Your task to perform on an android device: Open accessibility settings Image 0: 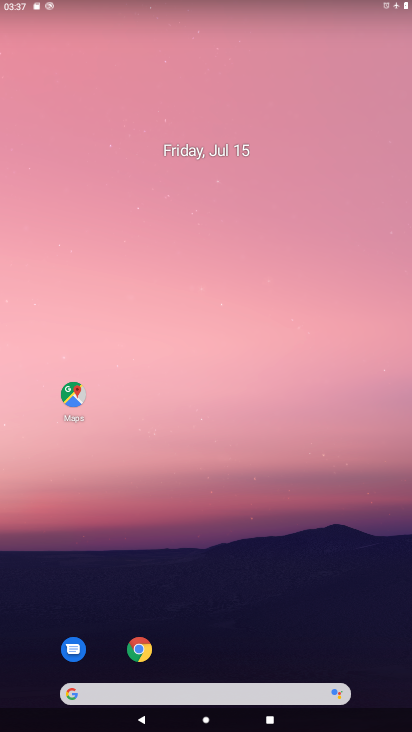
Step 0: drag from (396, 680) to (329, 84)
Your task to perform on an android device: Open accessibility settings Image 1: 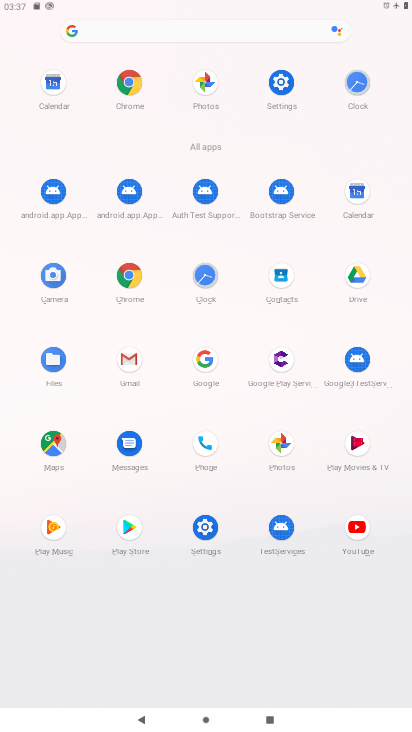
Step 1: click (205, 528)
Your task to perform on an android device: Open accessibility settings Image 2: 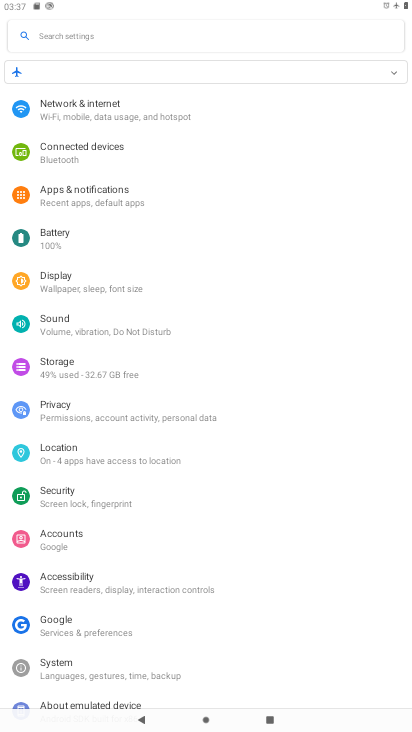
Step 2: drag from (251, 667) to (273, 420)
Your task to perform on an android device: Open accessibility settings Image 3: 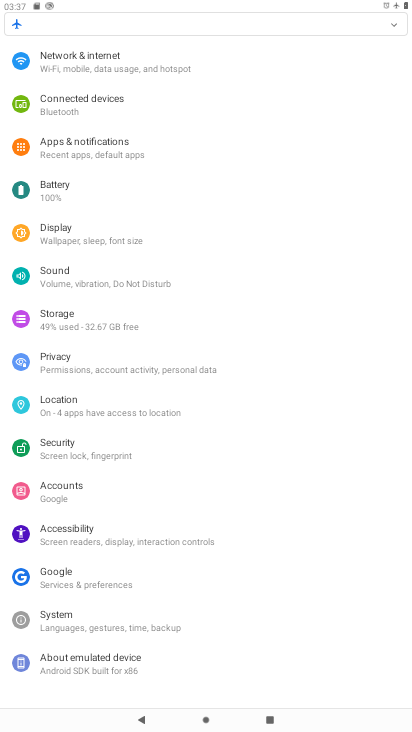
Step 3: click (68, 525)
Your task to perform on an android device: Open accessibility settings Image 4: 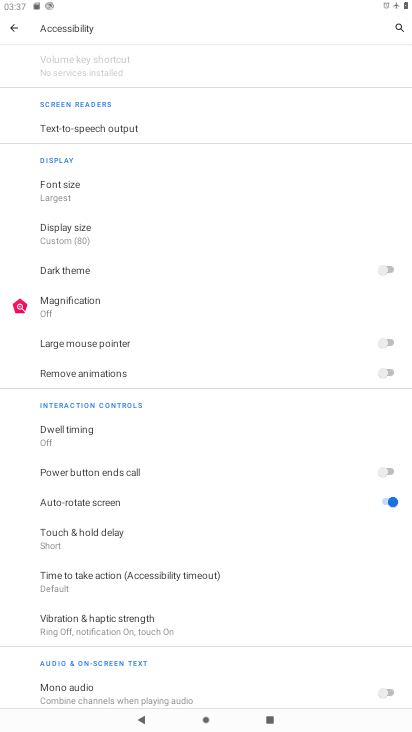
Step 4: task complete